Your task to perform on an android device: Go to display settings Image 0: 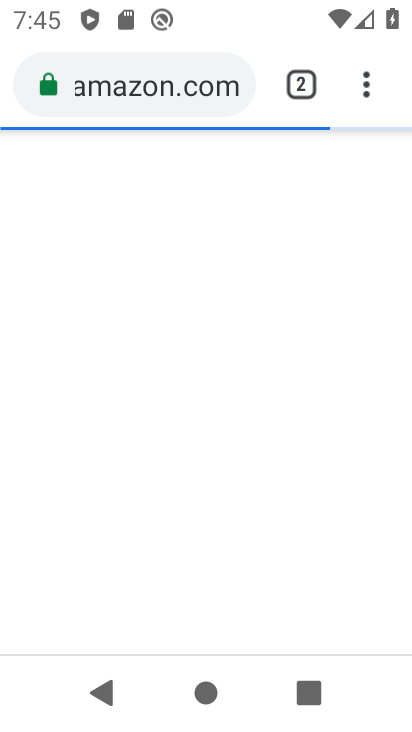
Step 0: press home button
Your task to perform on an android device: Go to display settings Image 1: 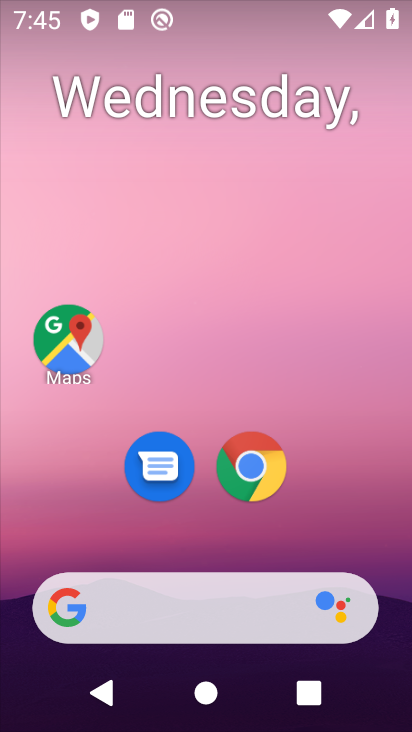
Step 1: drag from (192, 468) to (126, 26)
Your task to perform on an android device: Go to display settings Image 2: 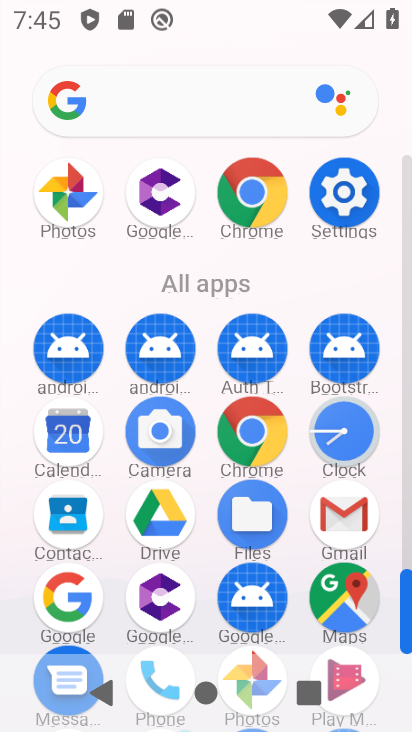
Step 2: click (338, 191)
Your task to perform on an android device: Go to display settings Image 3: 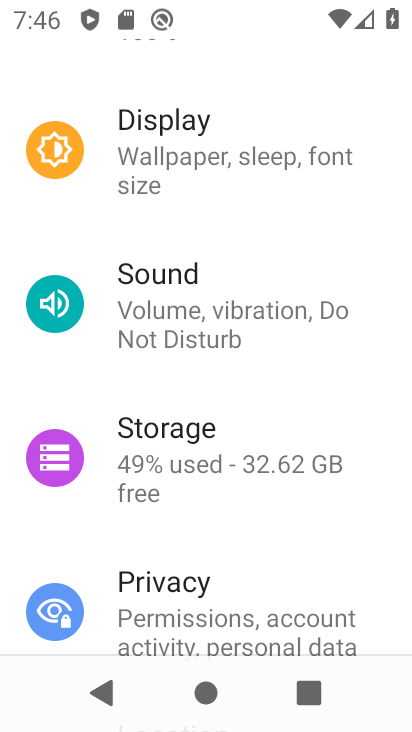
Step 3: click (148, 162)
Your task to perform on an android device: Go to display settings Image 4: 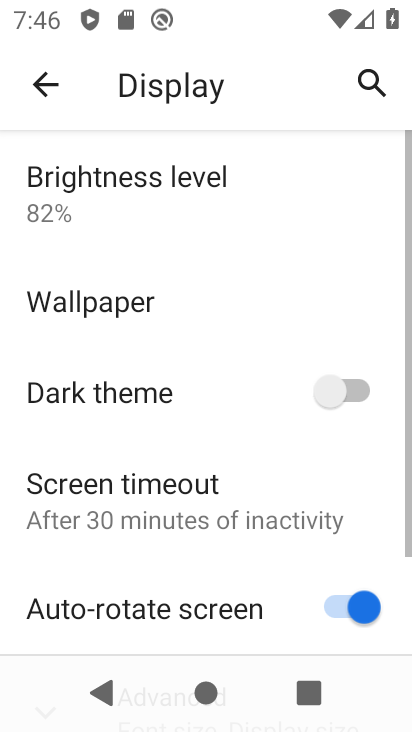
Step 4: drag from (188, 477) to (160, 165)
Your task to perform on an android device: Go to display settings Image 5: 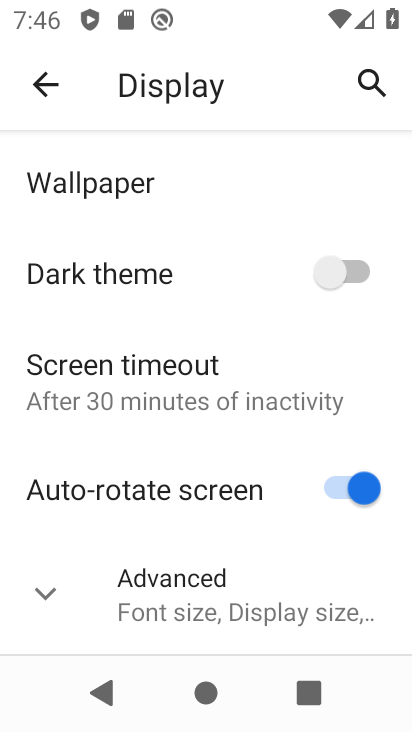
Step 5: click (214, 580)
Your task to perform on an android device: Go to display settings Image 6: 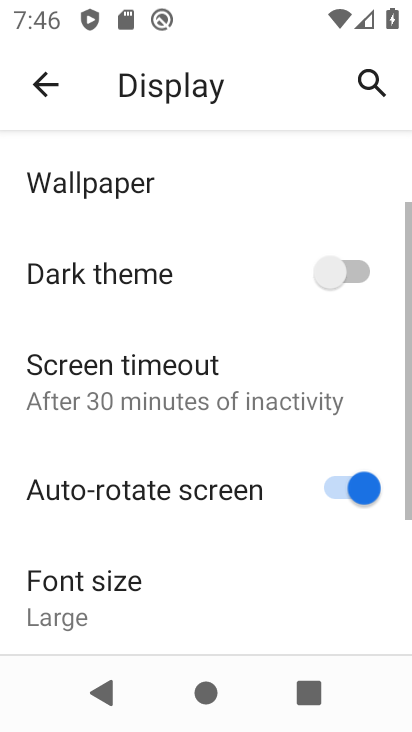
Step 6: task complete